Your task to perform on an android device: open a bookmark in the chrome app Image 0: 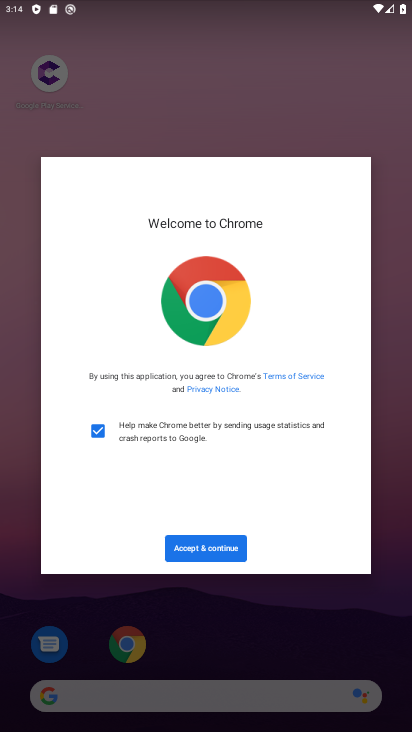
Step 0: click (196, 542)
Your task to perform on an android device: open a bookmark in the chrome app Image 1: 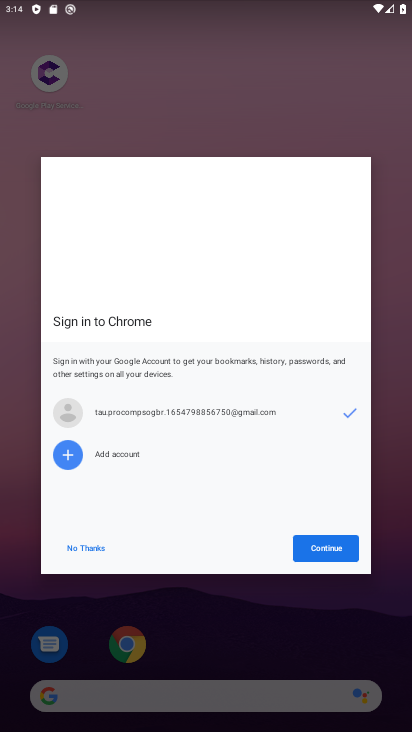
Step 1: click (343, 554)
Your task to perform on an android device: open a bookmark in the chrome app Image 2: 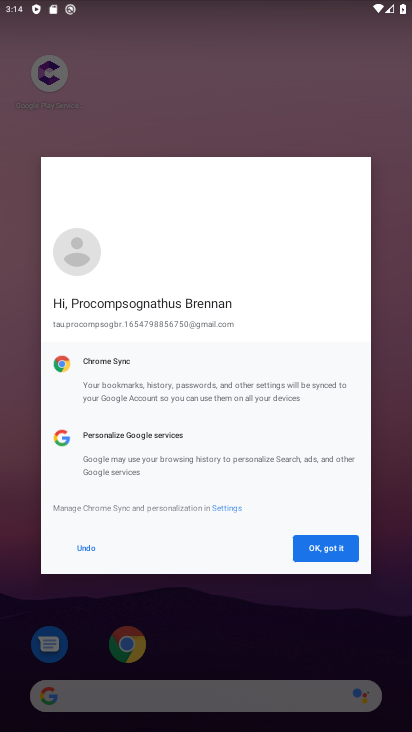
Step 2: click (343, 554)
Your task to perform on an android device: open a bookmark in the chrome app Image 3: 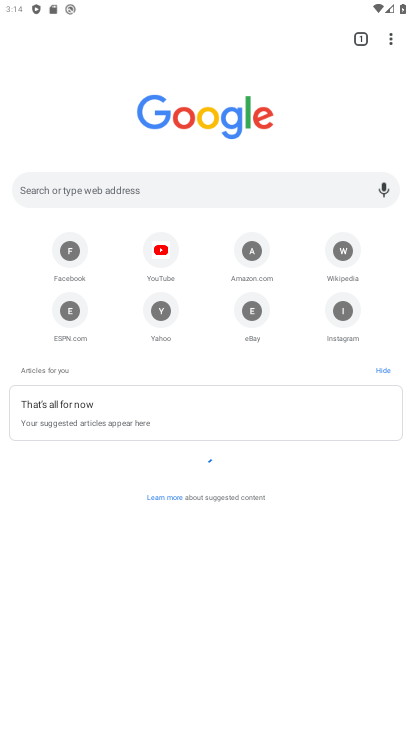
Step 3: click (392, 37)
Your task to perform on an android device: open a bookmark in the chrome app Image 4: 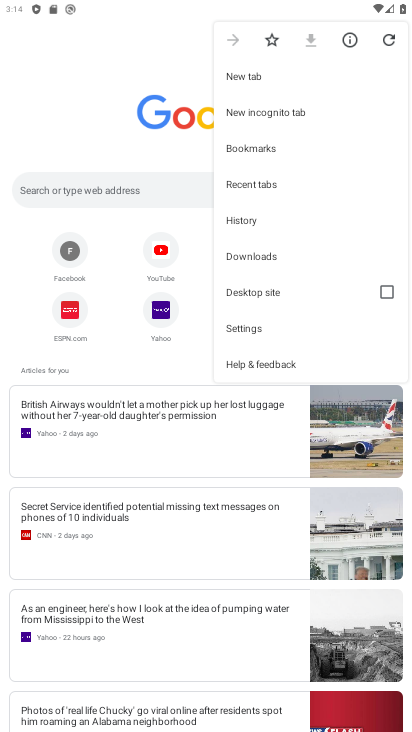
Step 4: click (241, 135)
Your task to perform on an android device: open a bookmark in the chrome app Image 5: 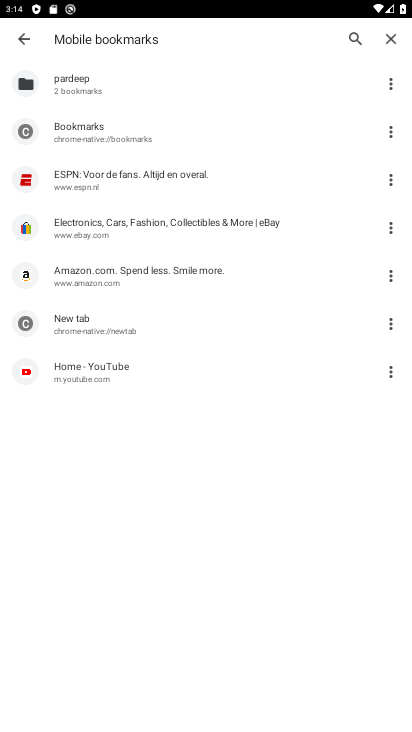
Step 5: task complete